Your task to perform on an android device: Is it going to rain tomorrow? Image 0: 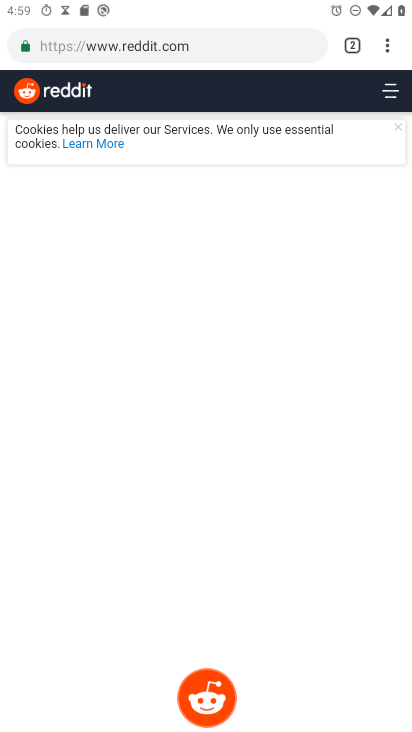
Step 0: press home button
Your task to perform on an android device: Is it going to rain tomorrow? Image 1: 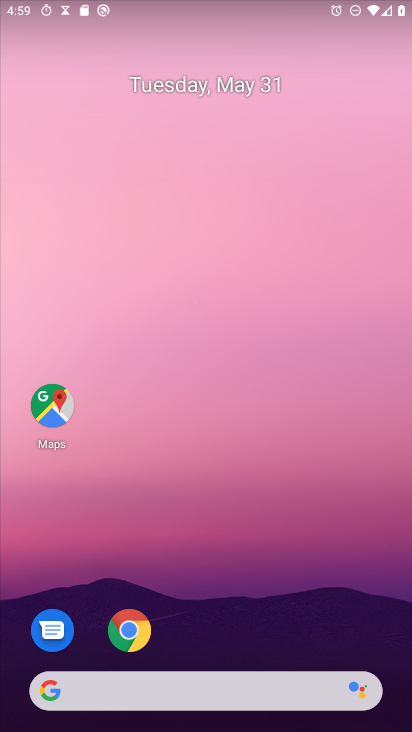
Step 1: drag from (68, 244) to (406, 223)
Your task to perform on an android device: Is it going to rain tomorrow? Image 2: 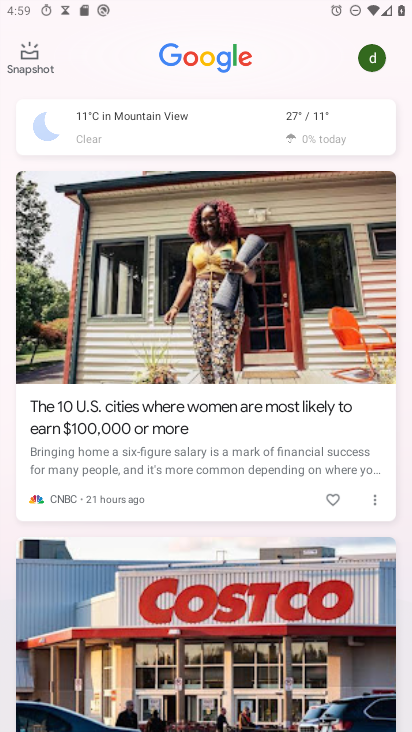
Step 2: click (285, 122)
Your task to perform on an android device: Is it going to rain tomorrow? Image 3: 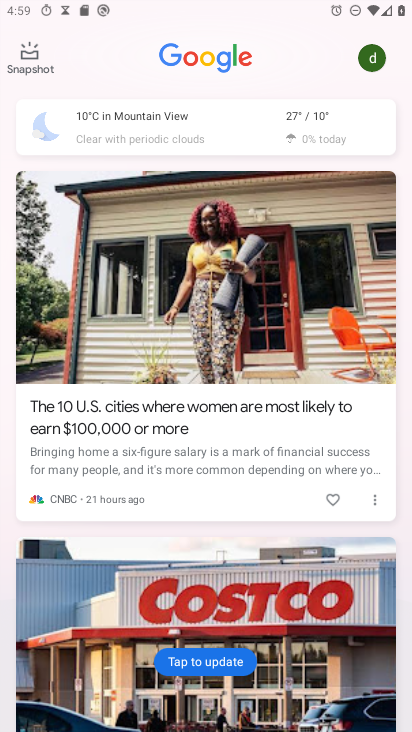
Step 3: click (231, 131)
Your task to perform on an android device: Is it going to rain tomorrow? Image 4: 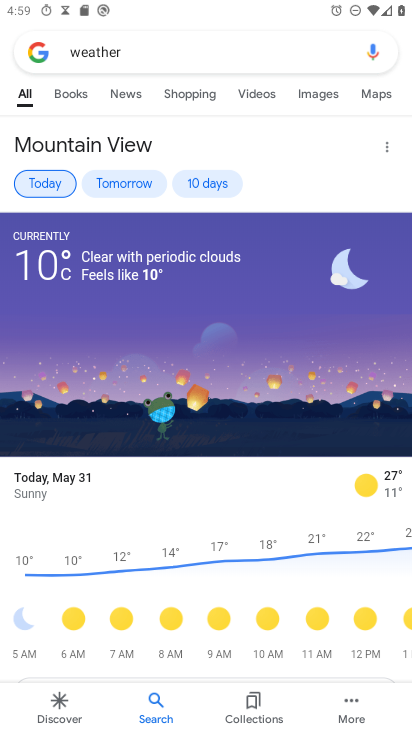
Step 4: task complete